Your task to perform on an android device: Search for sushi restaurants on Maps Image 0: 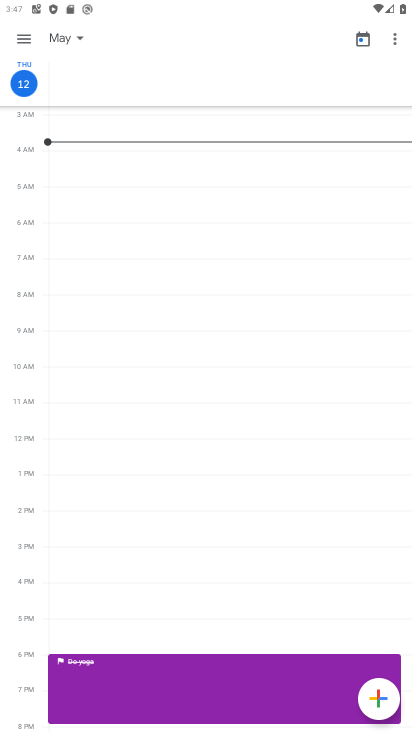
Step 0: press home button
Your task to perform on an android device: Search for sushi restaurants on Maps Image 1: 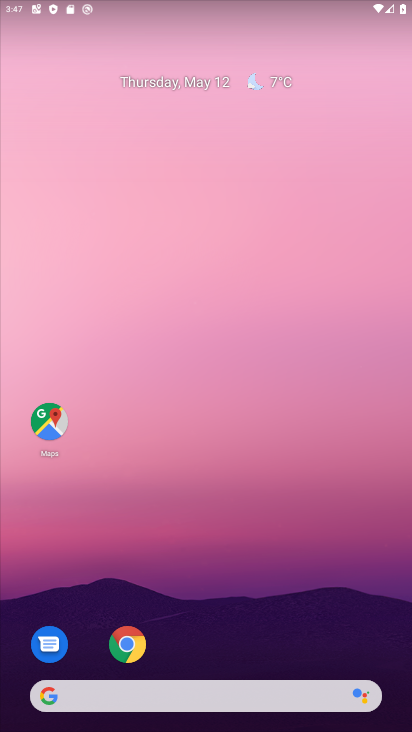
Step 1: click (48, 417)
Your task to perform on an android device: Search for sushi restaurants on Maps Image 2: 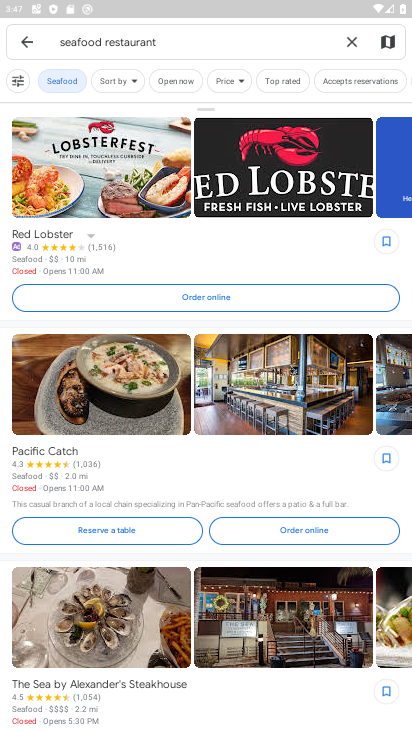
Step 2: click (349, 41)
Your task to perform on an android device: Search for sushi restaurants on Maps Image 3: 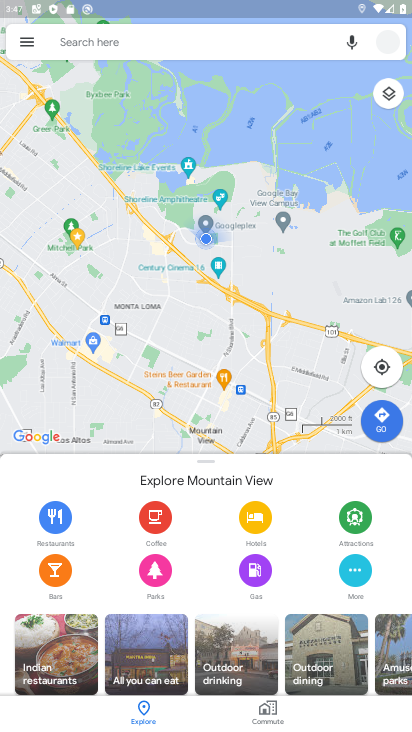
Step 3: click (92, 36)
Your task to perform on an android device: Search for sushi restaurants on Maps Image 4: 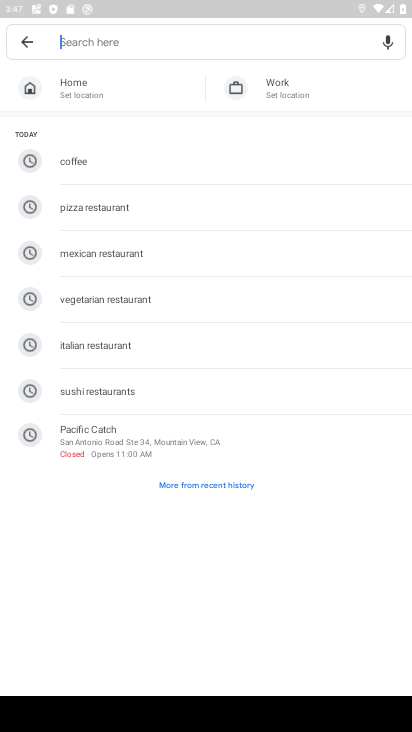
Step 4: type "sushi"
Your task to perform on an android device: Search for sushi restaurants on Maps Image 5: 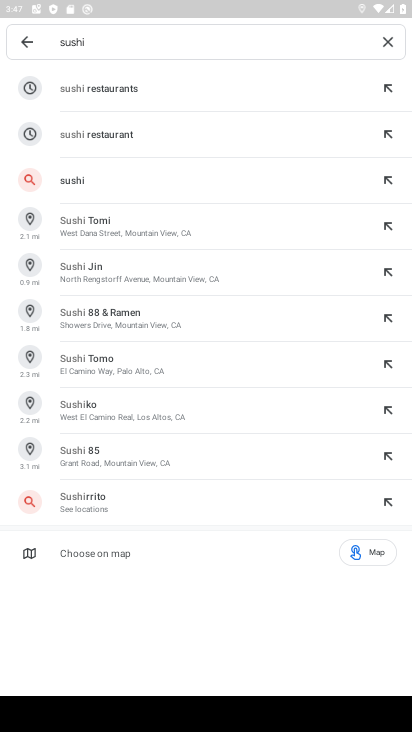
Step 5: click (115, 99)
Your task to perform on an android device: Search for sushi restaurants on Maps Image 6: 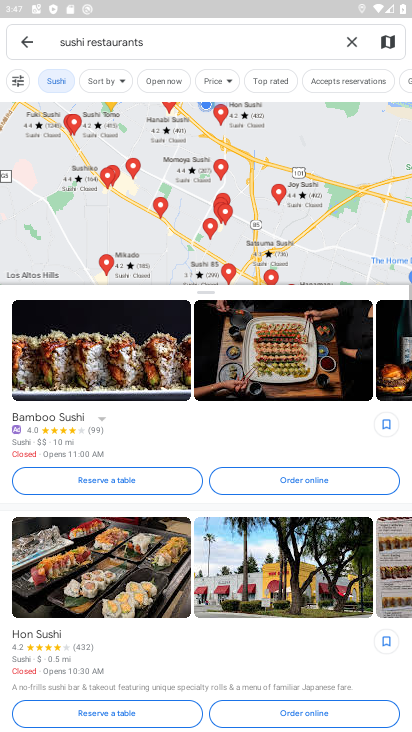
Step 6: task complete